Your task to perform on an android device: turn on data saver in the chrome app Image 0: 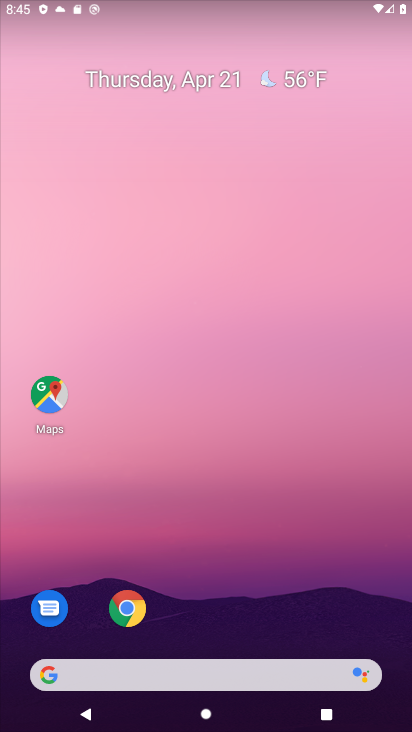
Step 0: click (131, 609)
Your task to perform on an android device: turn on data saver in the chrome app Image 1: 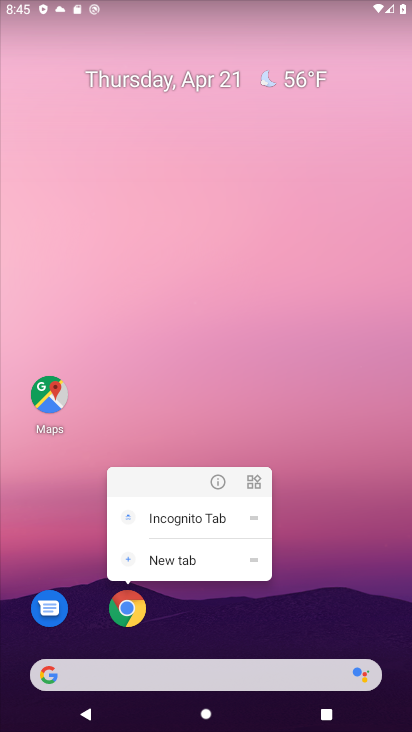
Step 1: click (131, 609)
Your task to perform on an android device: turn on data saver in the chrome app Image 2: 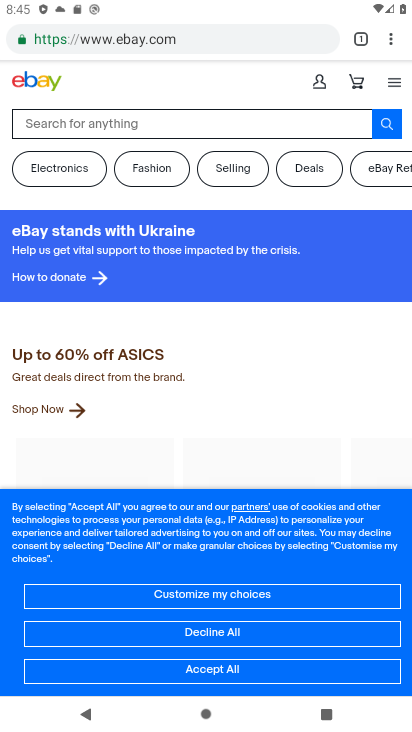
Step 2: click (389, 34)
Your task to perform on an android device: turn on data saver in the chrome app Image 3: 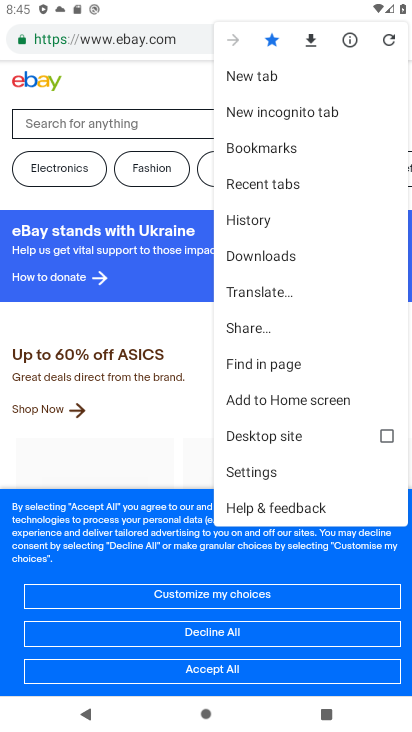
Step 3: click (286, 471)
Your task to perform on an android device: turn on data saver in the chrome app Image 4: 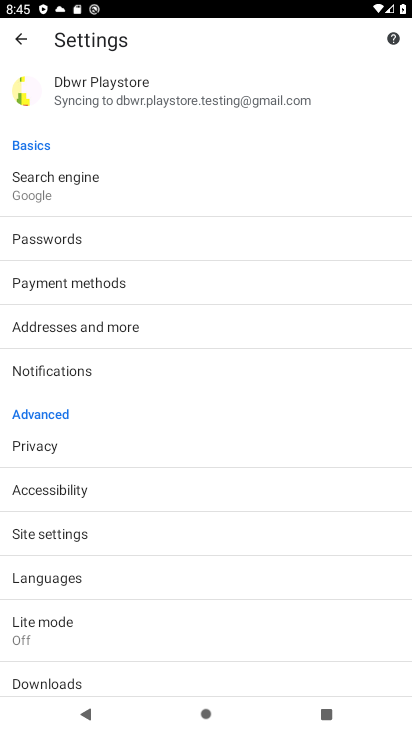
Step 4: click (201, 631)
Your task to perform on an android device: turn on data saver in the chrome app Image 5: 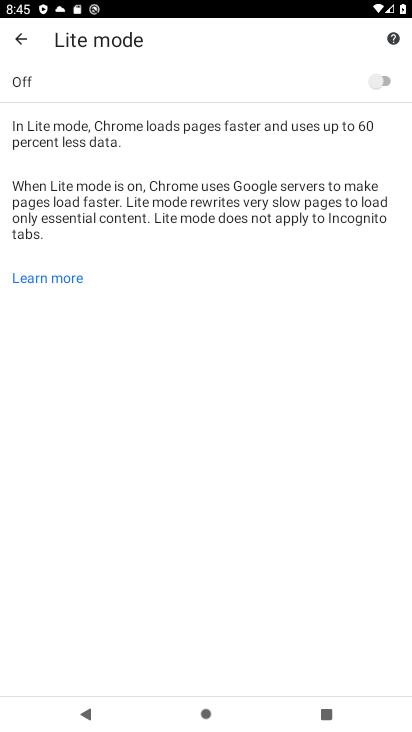
Step 5: click (383, 72)
Your task to perform on an android device: turn on data saver in the chrome app Image 6: 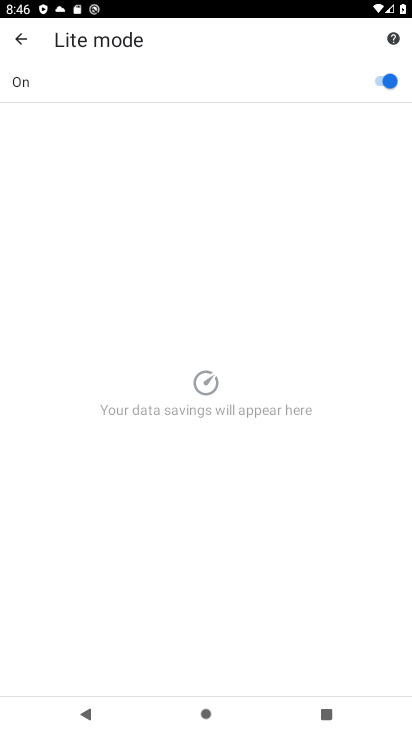
Step 6: task complete